Your task to perform on an android device: toggle pop-ups in chrome Image 0: 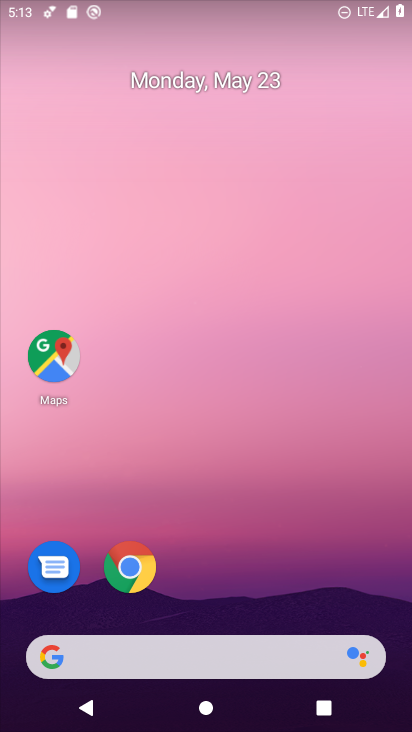
Step 0: click (129, 566)
Your task to perform on an android device: toggle pop-ups in chrome Image 1: 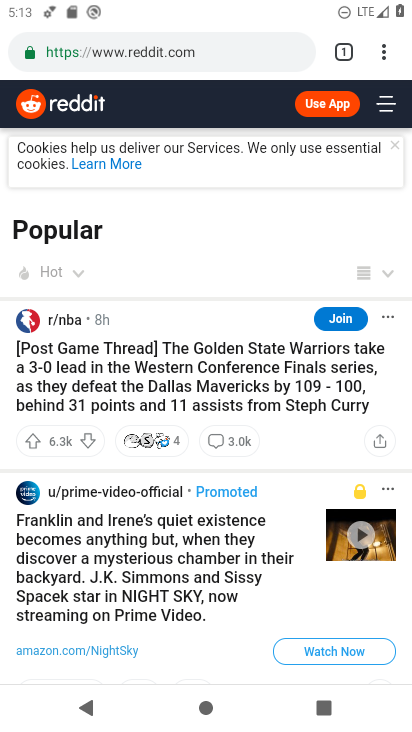
Step 1: click (385, 51)
Your task to perform on an android device: toggle pop-ups in chrome Image 2: 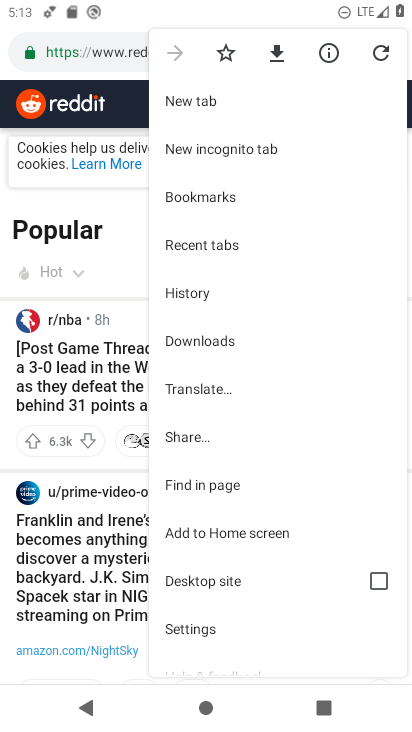
Step 2: click (189, 629)
Your task to perform on an android device: toggle pop-ups in chrome Image 3: 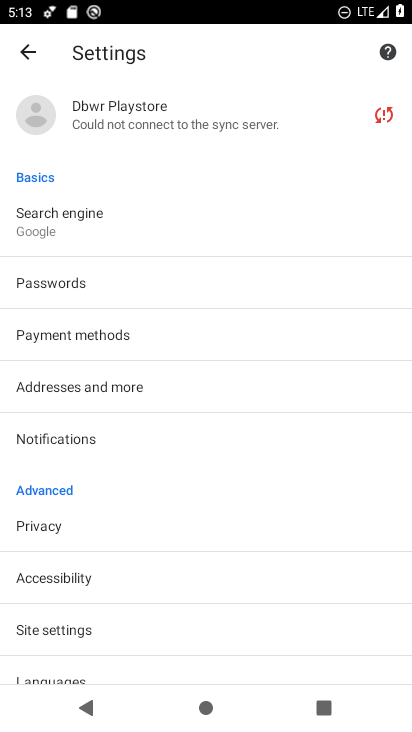
Step 3: click (68, 626)
Your task to perform on an android device: toggle pop-ups in chrome Image 4: 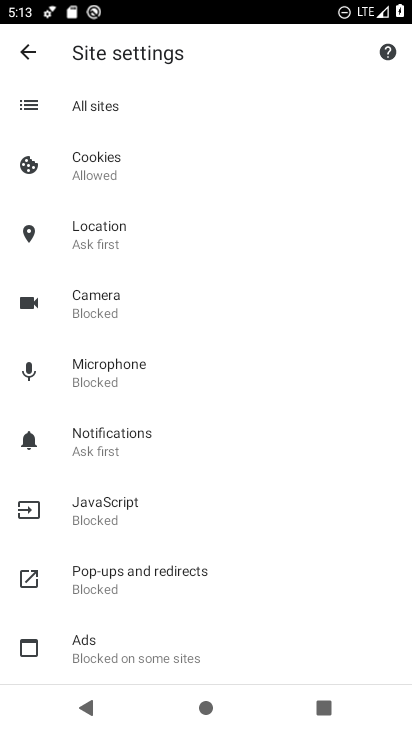
Step 4: click (154, 562)
Your task to perform on an android device: toggle pop-ups in chrome Image 5: 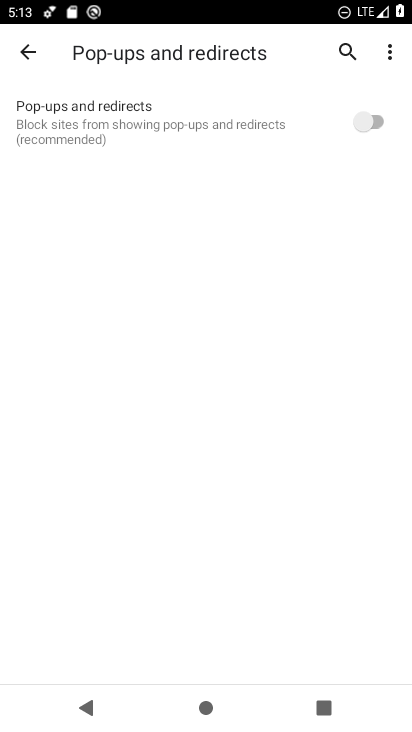
Step 5: click (368, 126)
Your task to perform on an android device: toggle pop-ups in chrome Image 6: 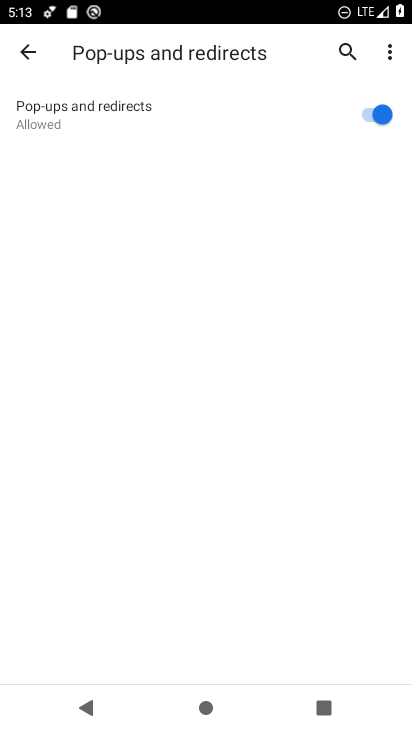
Step 6: task complete